Your task to perform on an android device: Play the last video I watched on Youtube Image 0: 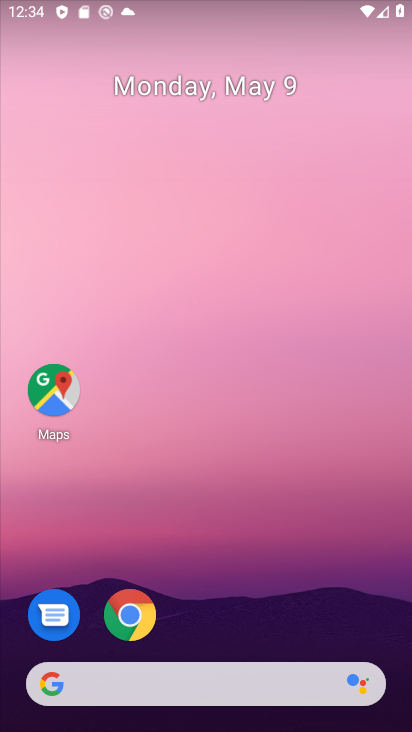
Step 0: drag from (264, 613) to (172, 71)
Your task to perform on an android device: Play the last video I watched on Youtube Image 1: 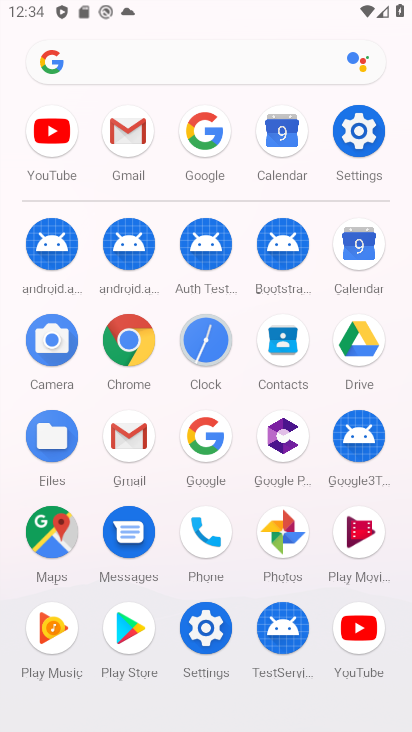
Step 1: click (56, 131)
Your task to perform on an android device: Play the last video I watched on Youtube Image 2: 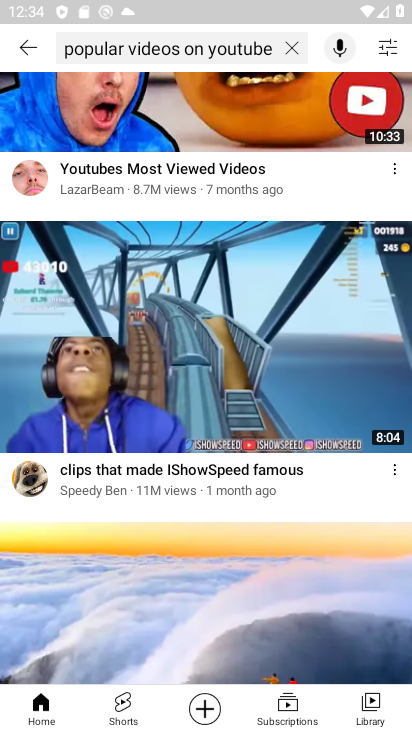
Step 2: click (376, 699)
Your task to perform on an android device: Play the last video I watched on Youtube Image 3: 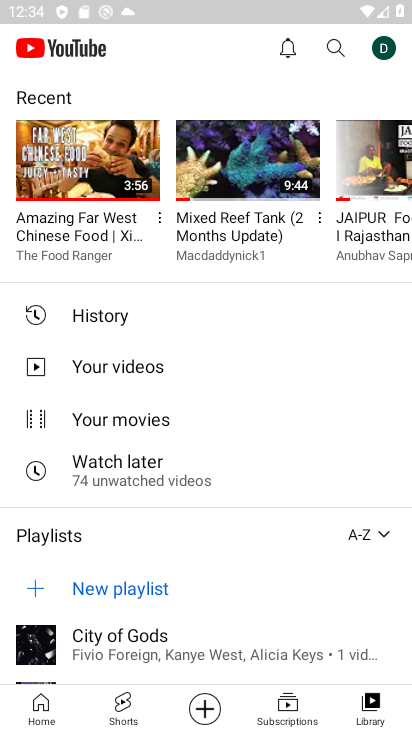
Step 3: click (69, 160)
Your task to perform on an android device: Play the last video I watched on Youtube Image 4: 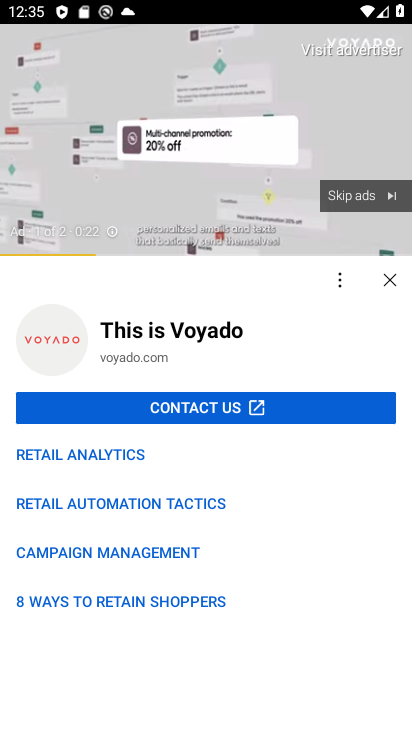
Step 4: click (389, 195)
Your task to perform on an android device: Play the last video I watched on Youtube Image 5: 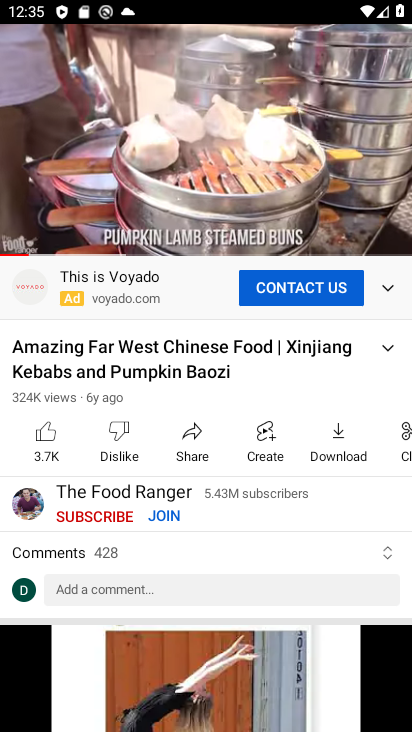
Step 5: task complete